Your task to perform on an android device: Open wifi settings Image 0: 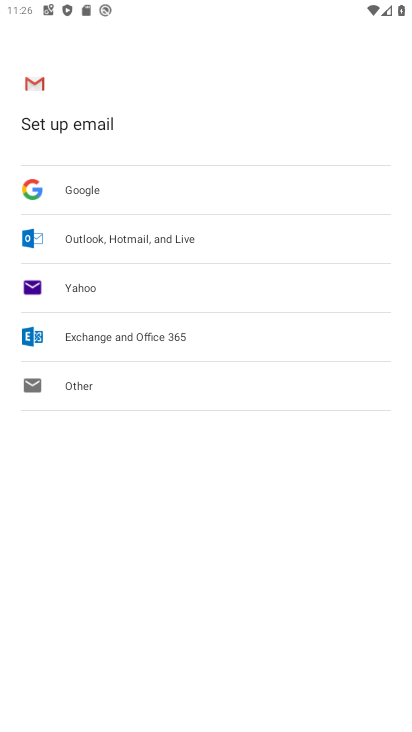
Step 0: press back button
Your task to perform on an android device: Open wifi settings Image 1: 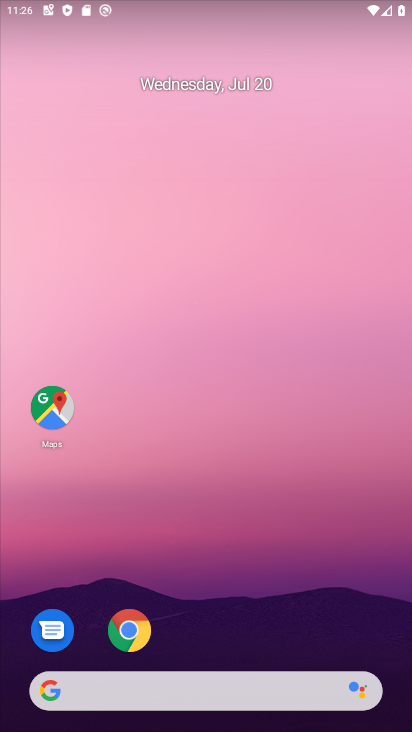
Step 1: drag from (285, 708) to (211, 134)
Your task to perform on an android device: Open wifi settings Image 2: 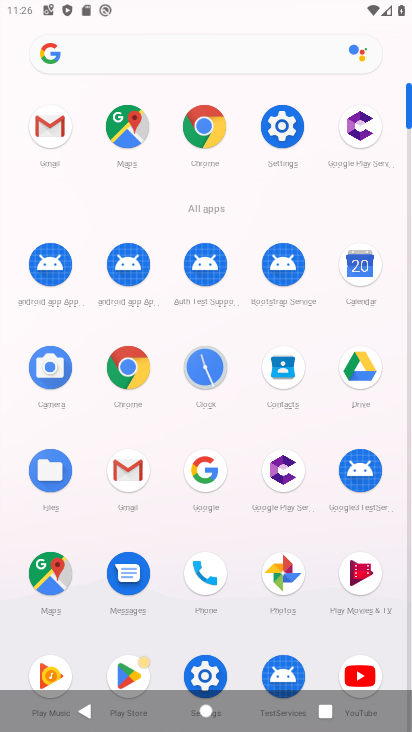
Step 2: click (271, 128)
Your task to perform on an android device: Open wifi settings Image 3: 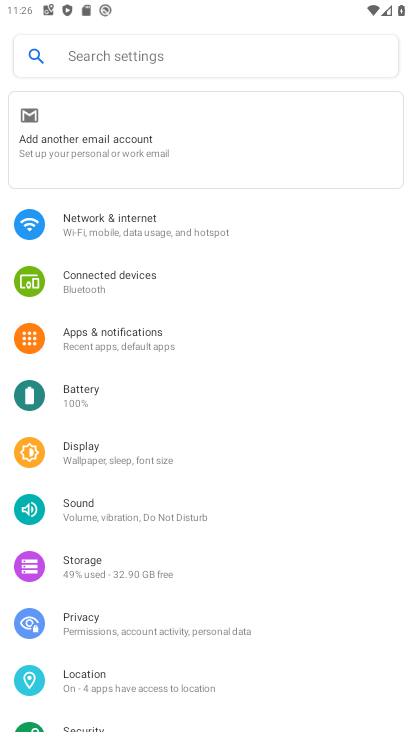
Step 3: click (134, 223)
Your task to perform on an android device: Open wifi settings Image 4: 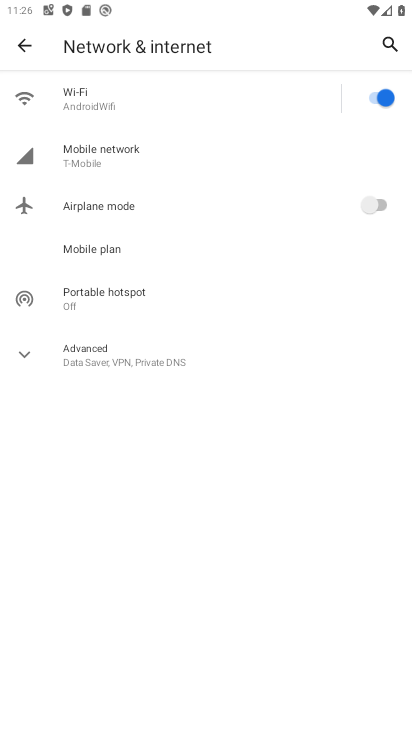
Step 4: click (106, 97)
Your task to perform on an android device: Open wifi settings Image 5: 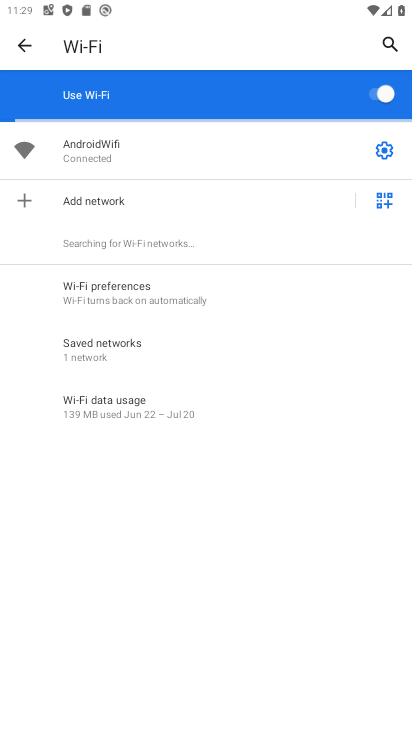
Step 5: task complete